Your task to perform on an android device: turn notification dots on Image 0: 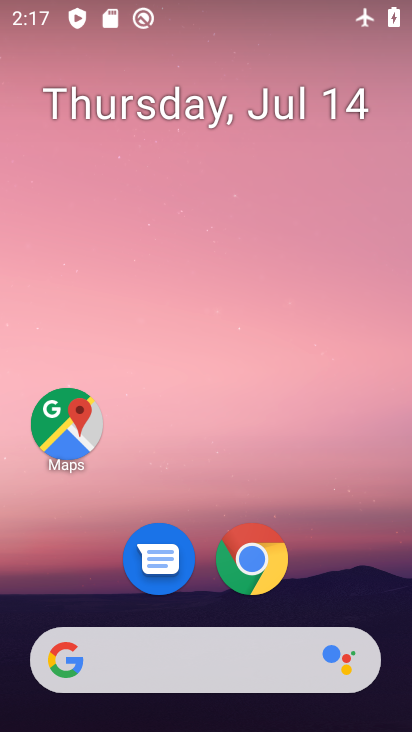
Step 0: drag from (201, 706) to (277, 106)
Your task to perform on an android device: turn notification dots on Image 1: 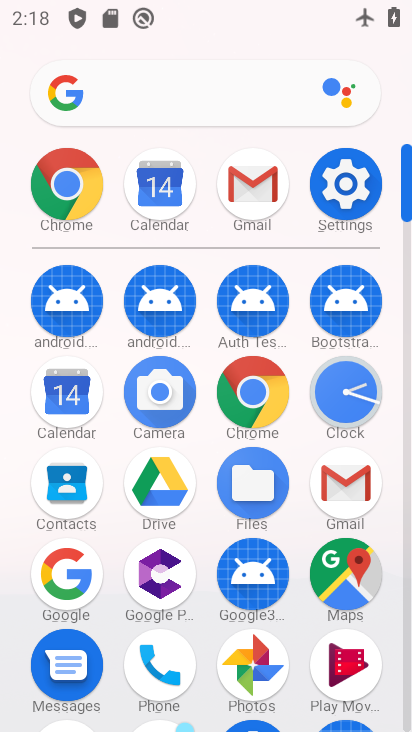
Step 1: click (350, 176)
Your task to perform on an android device: turn notification dots on Image 2: 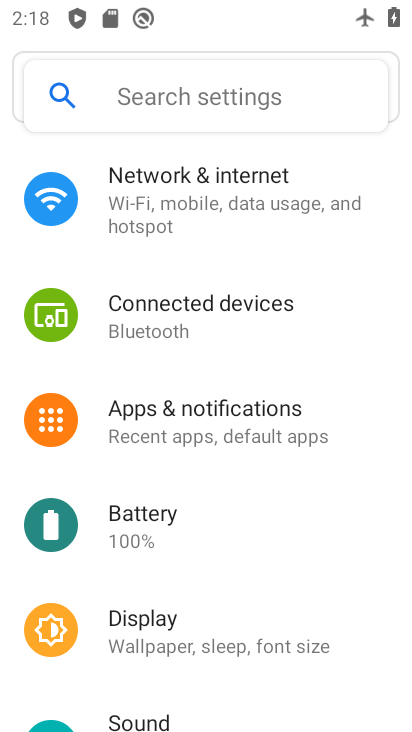
Step 2: click (224, 433)
Your task to perform on an android device: turn notification dots on Image 3: 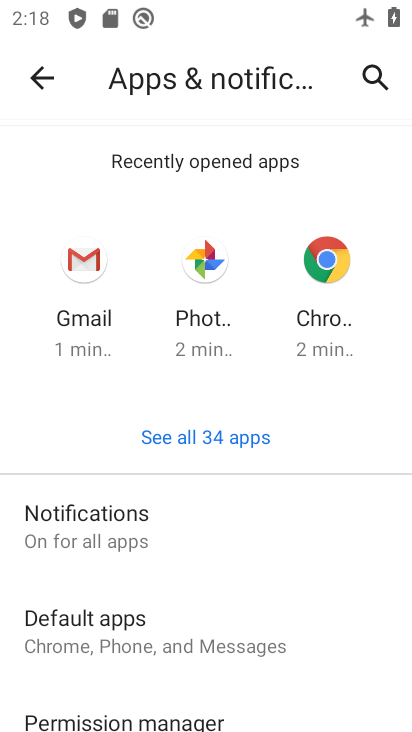
Step 3: click (145, 538)
Your task to perform on an android device: turn notification dots on Image 4: 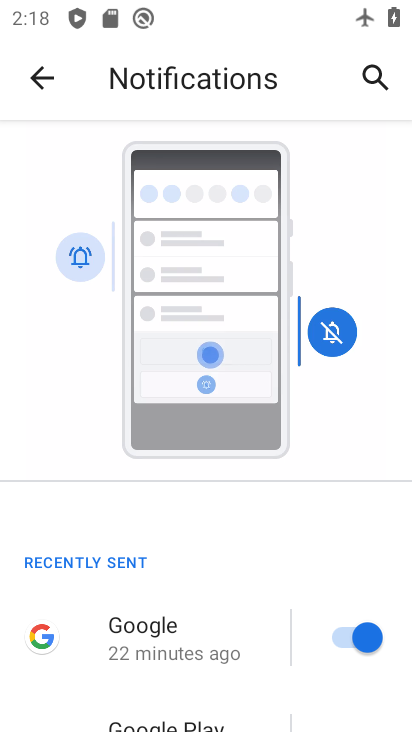
Step 4: drag from (176, 620) to (293, 176)
Your task to perform on an android device: turn notification dots on Image 5: 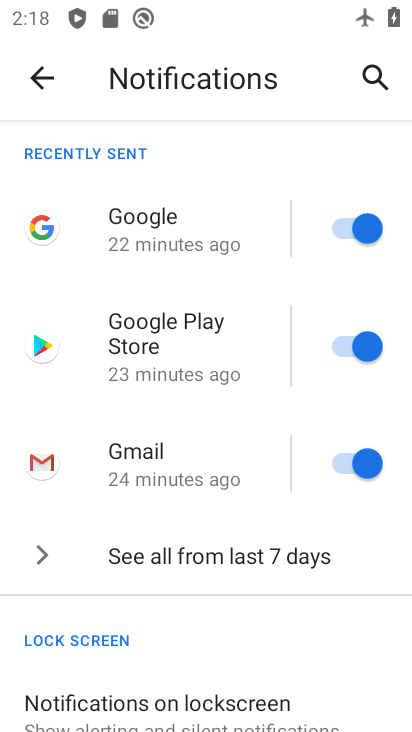
Step 5: drag from (188, 542) to (224, 213)
Your task to perform on an android device: turn notification dots on Image 6: 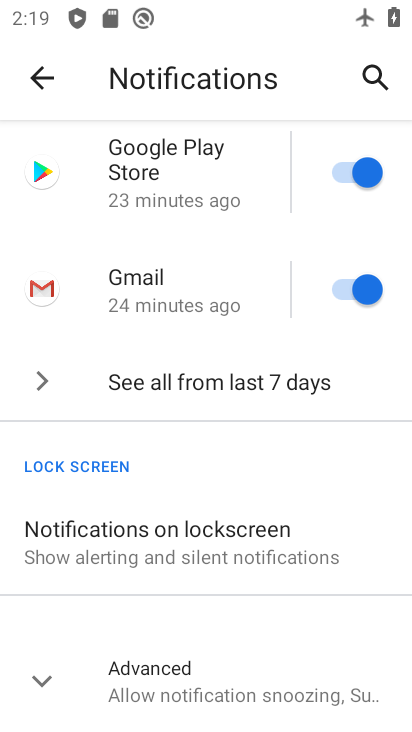
Step 6: drag from (142, 635) to (161, 284)
Your task to perform on an android device: turn notification dots on Image 7: 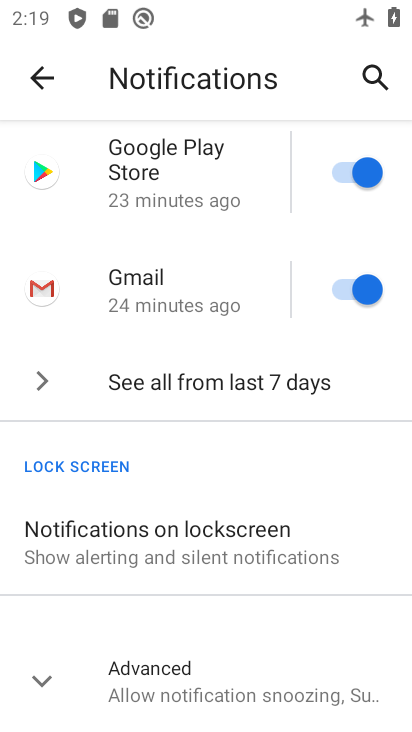
Step 7: click (114, 674)
Your task to perform on an android device: turn notification dots on Image 8: 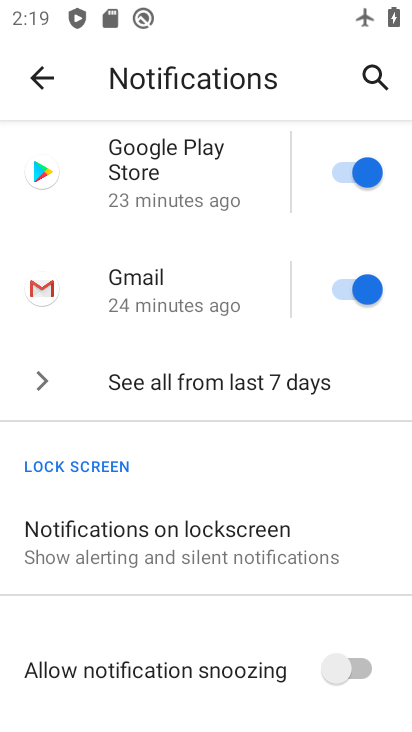
Step 8: task complete